Your task to perform on an android device: turn off location Image 0: 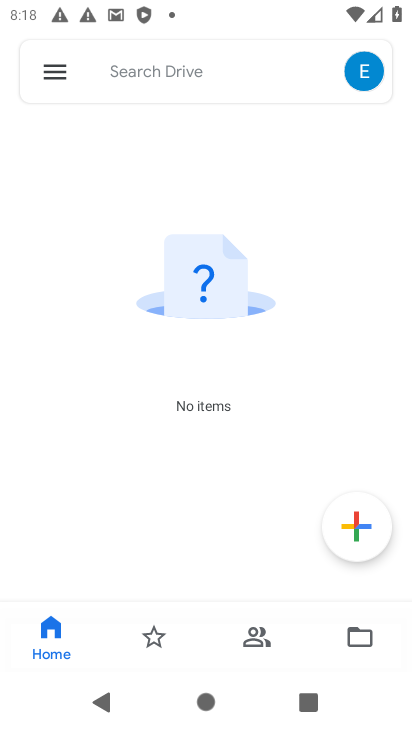
Step 0: press back button
Your task to perform on an android device: turn off location Image 1: 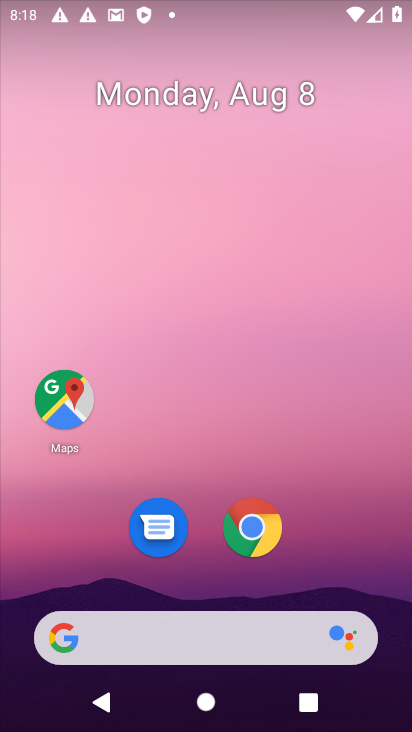
Step 1: drag from (337, 640) to (219, 70)
Your task to perform on an android device: turn off location Image 2: 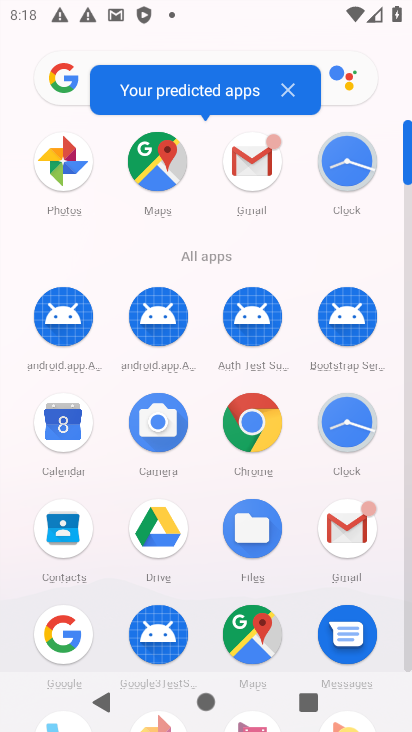
Step 2: drag from (172, 606) to (105, 300)
Your task to perform on an android device: turn off location Image 3: 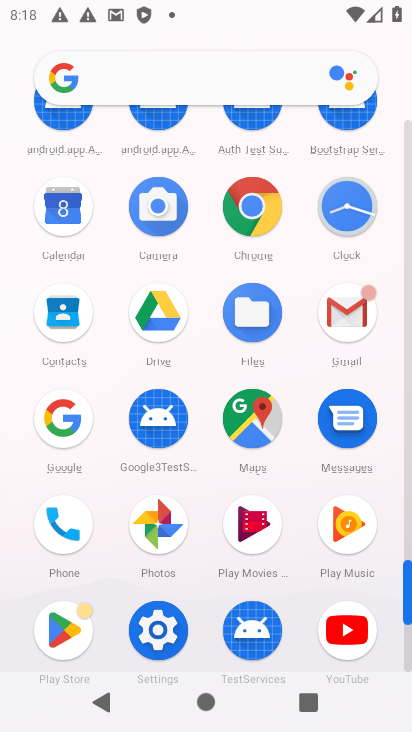
Step 3: click (130, 618)
Your task to perform on an android device: turn off location Image 4: 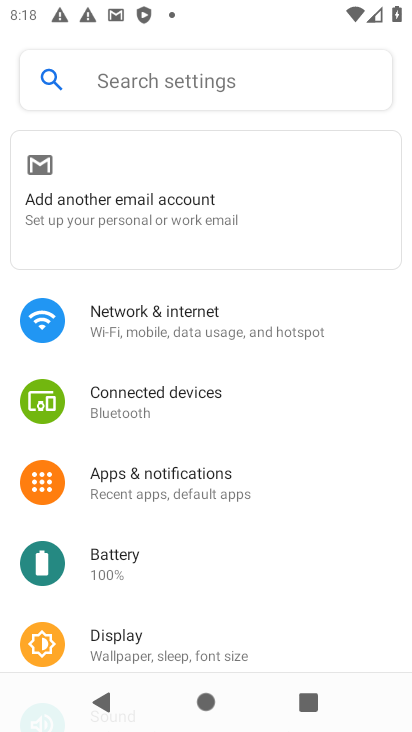
Step 4: drag from (323, 651) to (138, 57)
Your task to perform on an android device: turn off location Image 5: 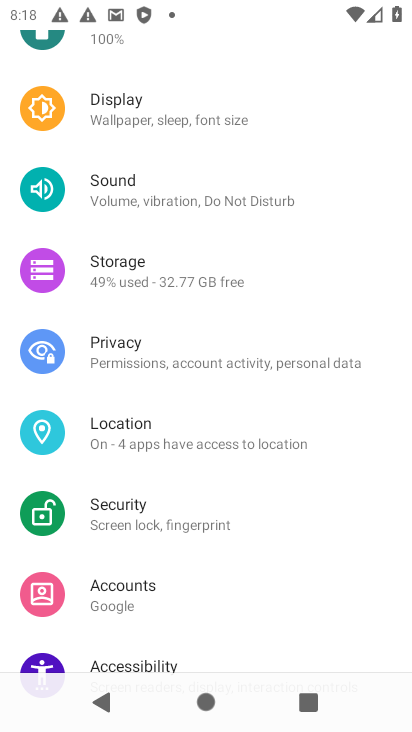
Step 5: click (115, 427)
Your task to perform on an android device: turn off location Image 6: 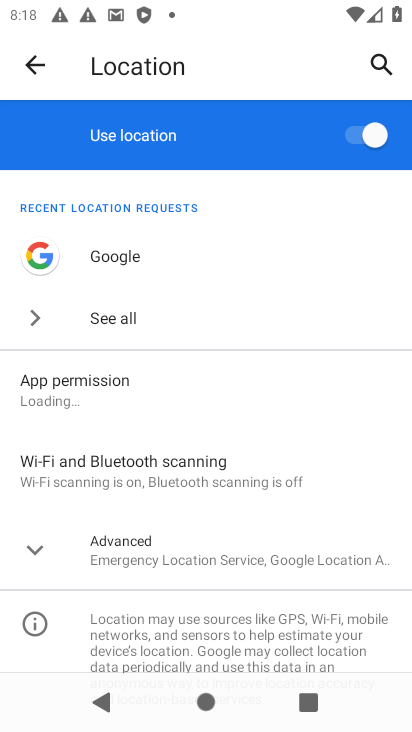
Step 6: click (347, 135)
Your task to perform on an android device: turn off location Image 7: 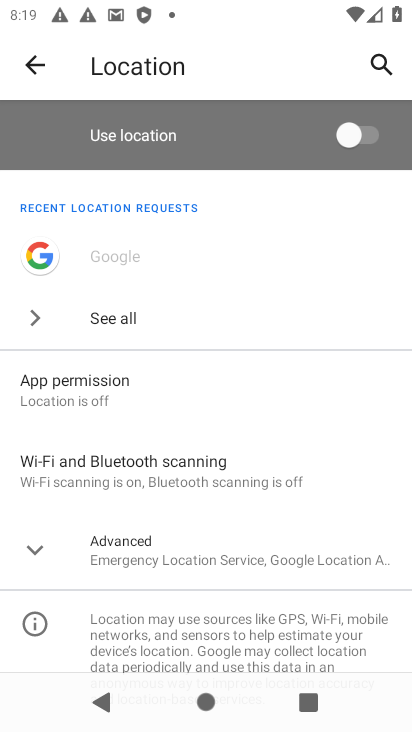
Step 7: task complete